Your task to perform on an android device: Open settings on Google Maps Image 0: 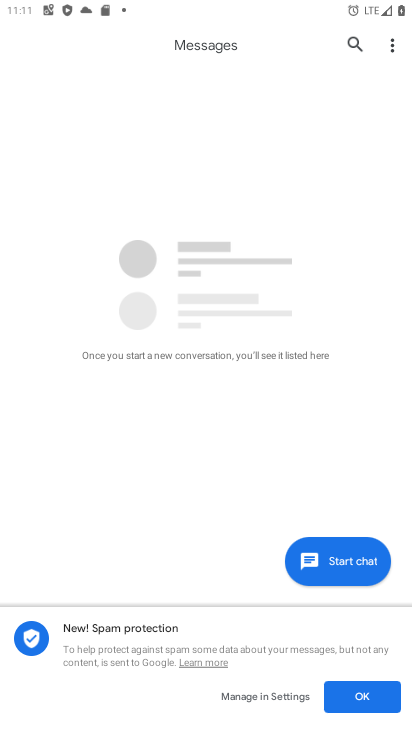
Step 0: press home button
Your task to perform on an android device: Open settings on Google Maps Image 1: 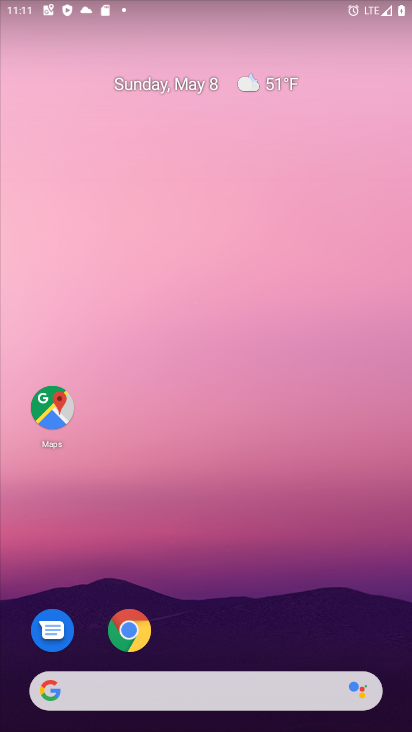
Step 1: drag from (381, 621) to (267, 103)
Your task to perform on an android device: Open settings on Google Maps Image 2: 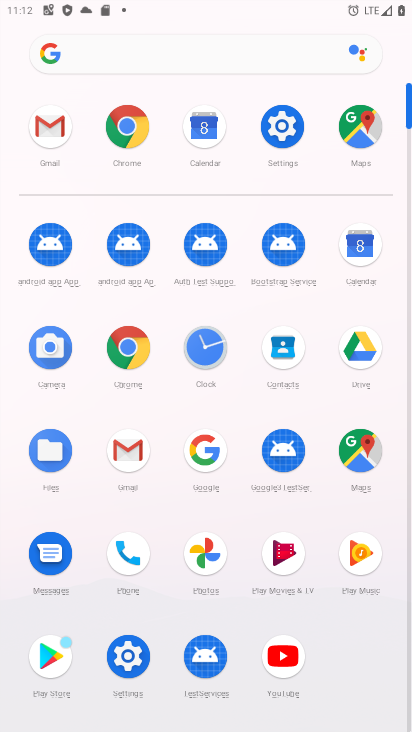
Step 2: click (355, 449)
Your task to perform on an android device: Open settings on Google Maps Image 3: 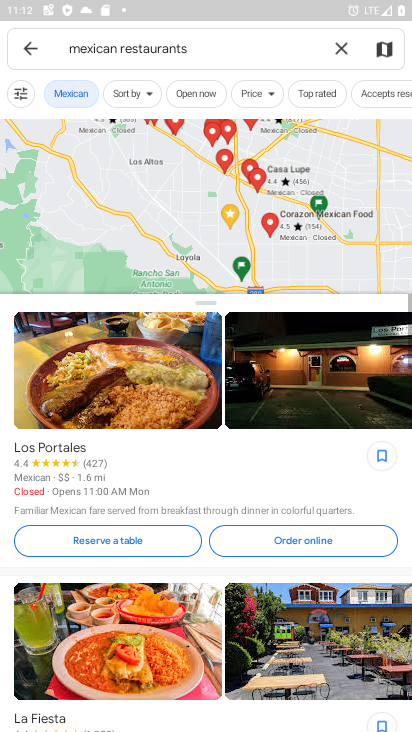
Step 3: click (342, 46)
Your task to perform on an android device: Open settings on Google Maps Image 4: 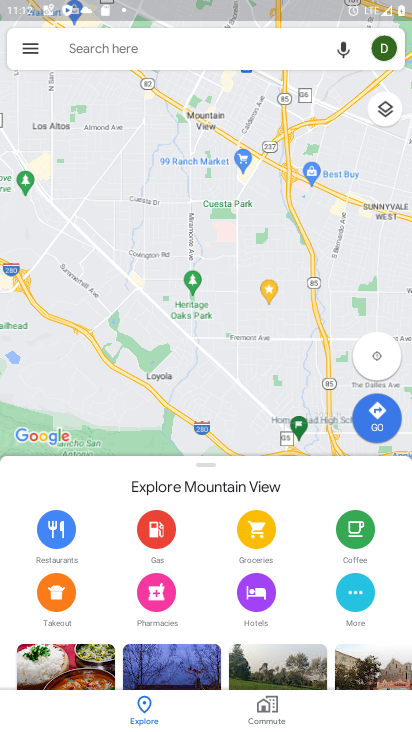
Step 4: click (31, 49)
Your task to perform on an android device: Open settings on Google Maps Image 5: 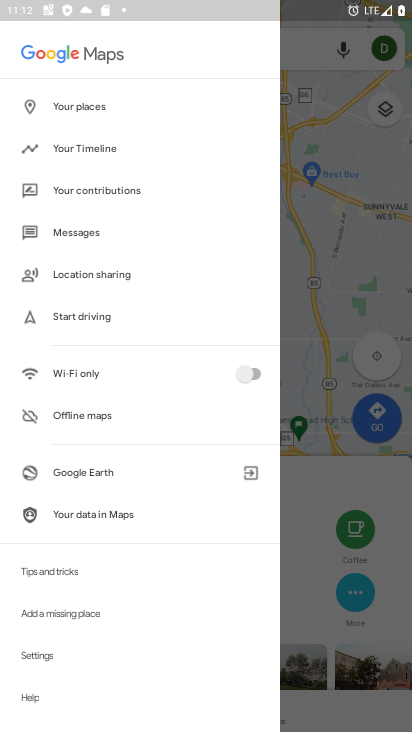
Step 5: click (51, 648)
Your task to perform on an android device: Open settings on Google Maps Image 6: 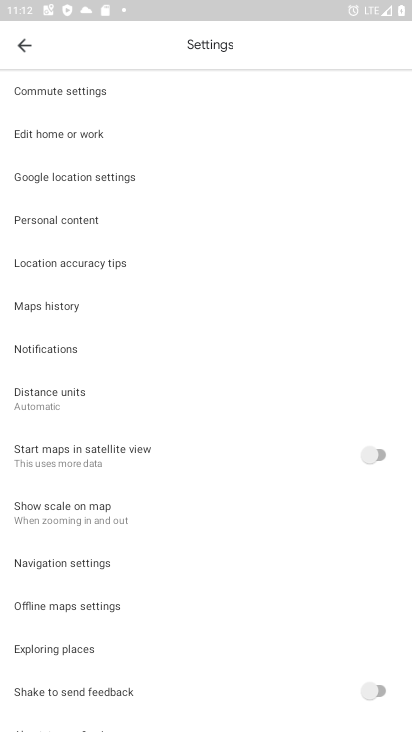
Step 6: task complete